Your task to perform on an android device: open a bookmark in the chrome app Image 0: 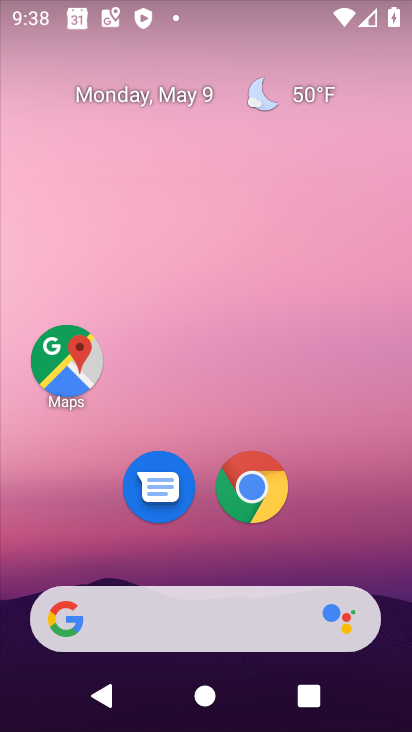
Step 0: click (237, 497)
Your task to perform on an android device: open a bookmark in the chrome app Image 1: 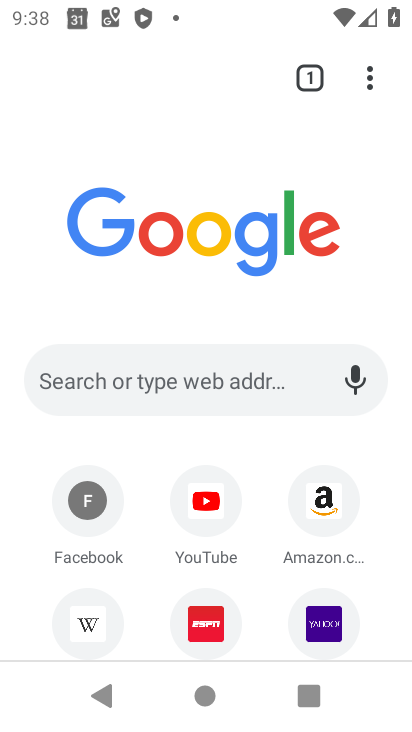
Step 1: click (365, 75)
Your task to perform on an android device: open a bookmark in the chrome app Image 2: 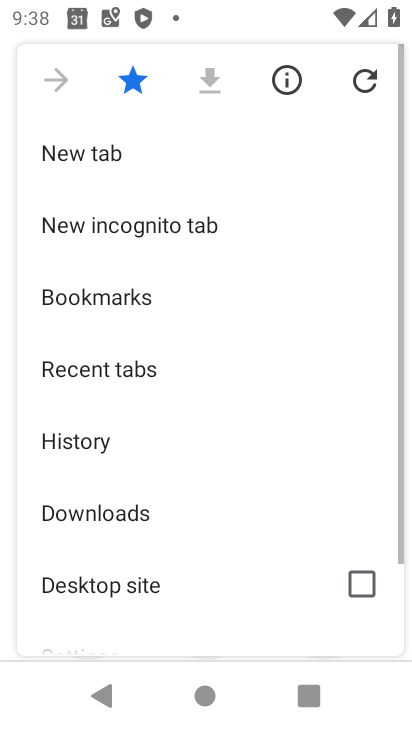
Step 2: click (110, 291)
Your task to perform on an android device: open a bookmark in the chrome app Image 3: 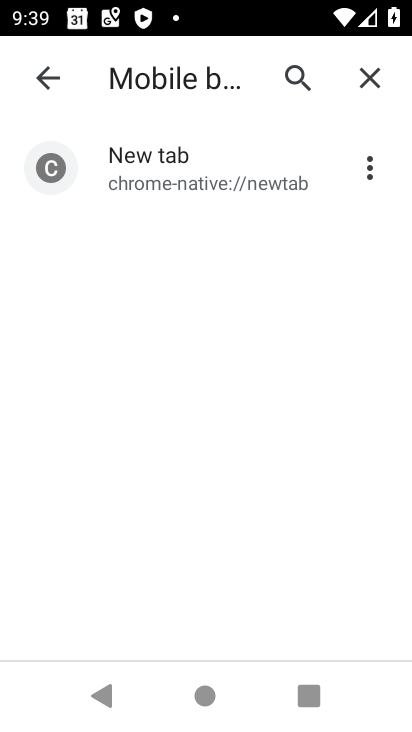
Step 3: click (238, 171)
Your task to perform on an android device: open a bookmark in the chrome app Image 4: 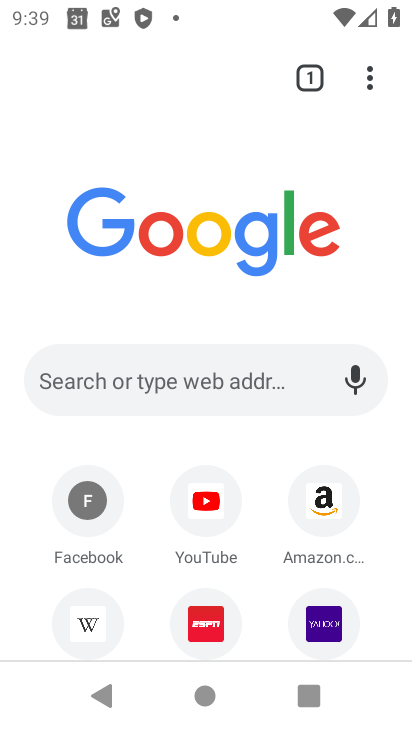
Step 4: task complete